Your task to perform on an android device: open device folders in google photos Image 0: 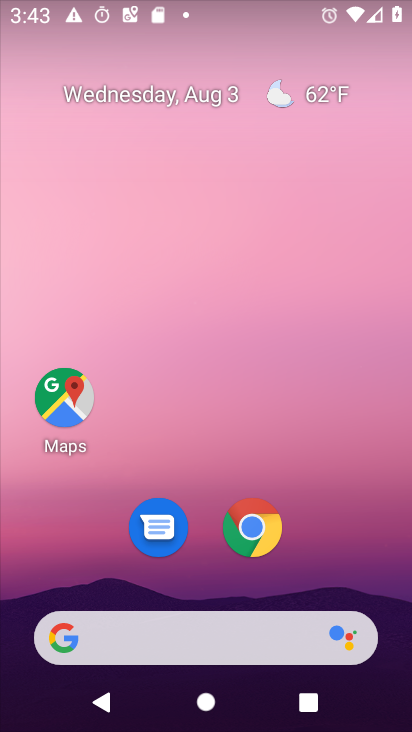
Step 0: drag from (351, 535) to (351, 120)
Your task to perform on an android device: open device folders in google photos Image 1: 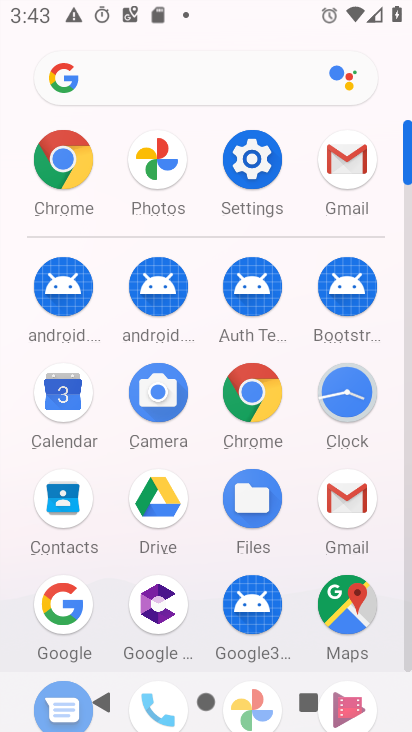
Step 1: drag from (303, 563) to (323, 202)
Your task to perform on an android device: open device folders in google photos Image 2: 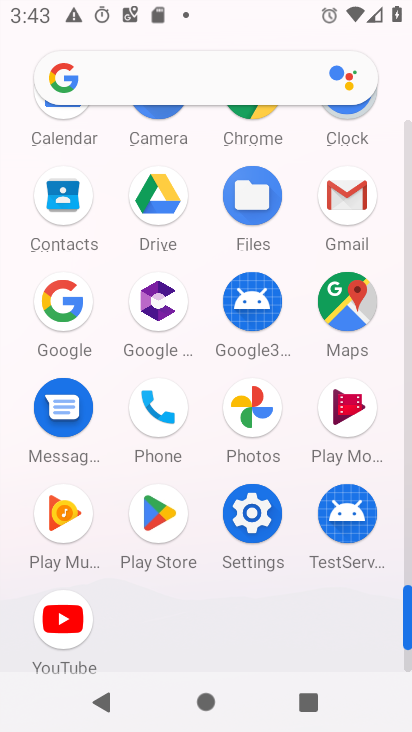
Step 2: click (256, 405)
Your task to perform on an android device: open device folders in google photos Image 3: 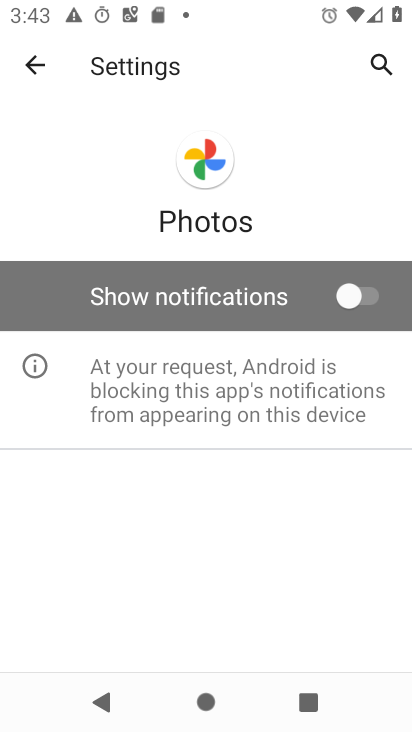
Step 3: click (32, 54)
Your task to perform on an android device: open device folders in google photos Image 4: 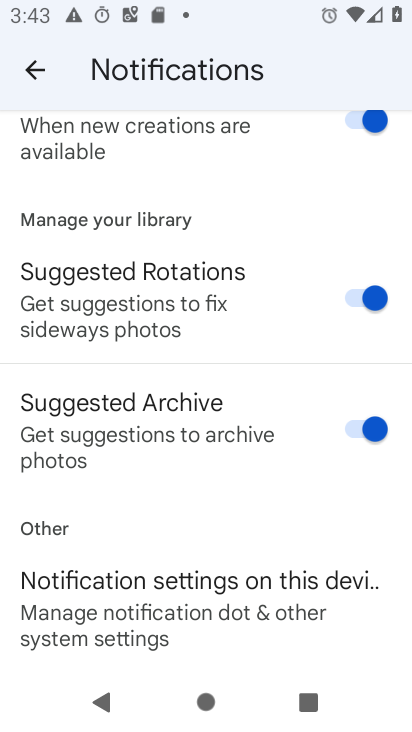
Step 4: click (49, 69)
Your task to perform on an android device: open device folders in google photos Image 5: 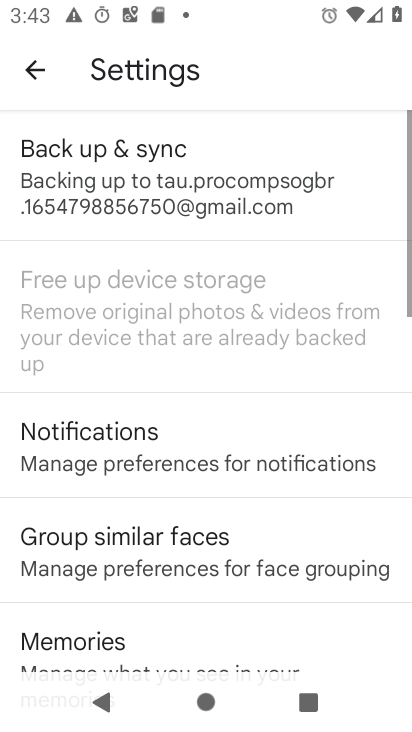
Step 5: click (49, 69)
Your task to perform on an android device: open device folders in google photos Image 6: 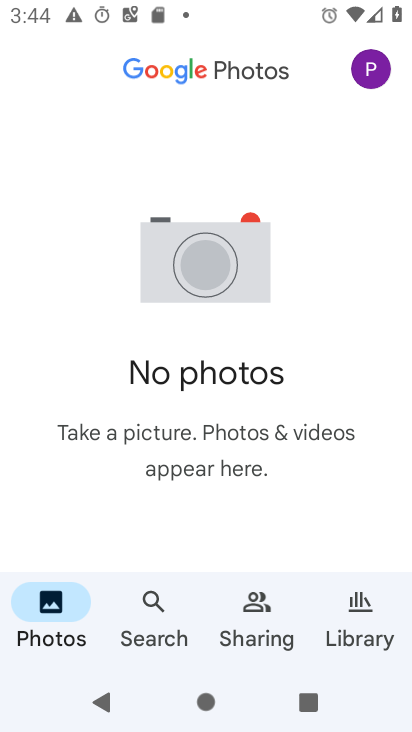
Step 6: click (348, 595)
Your task to perform on an android device: open device folders in google photos Image 7: 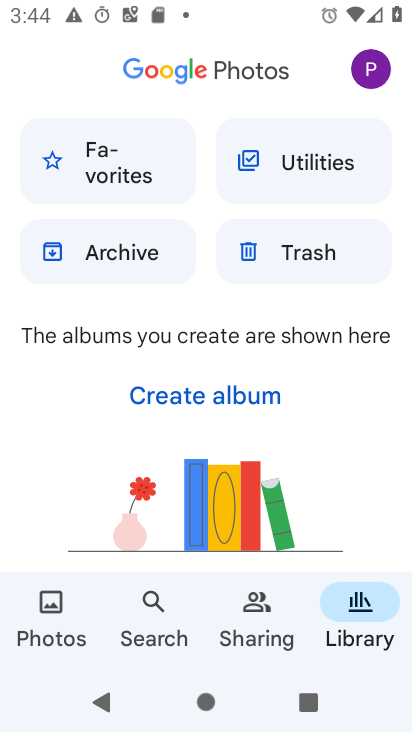
Step 7: click (301, 173)
Your task to perform on an android device: open device folders in google photos Image 8: 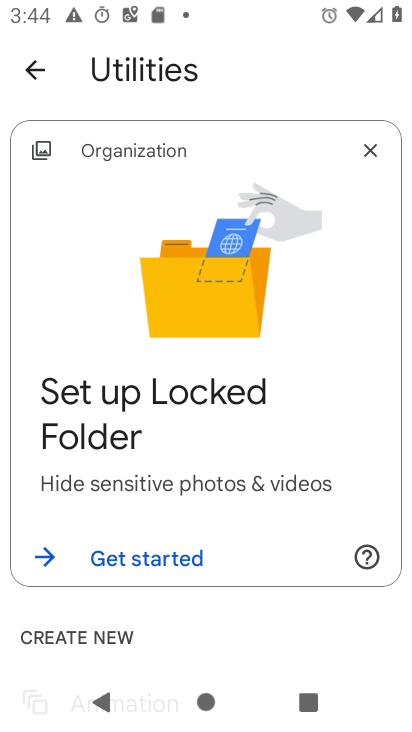
Step 8: drag from (259, 576) to (283, 135)
Your task to perform on an android device: open device folders in google photos Image 9: 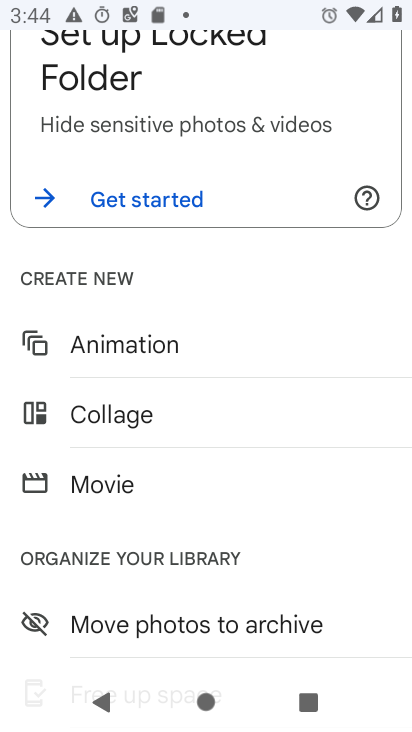
Step 9: drag from (239, 480) to (285, 192)
Your task to perform on an android device: open device folders in google photos Image 10: 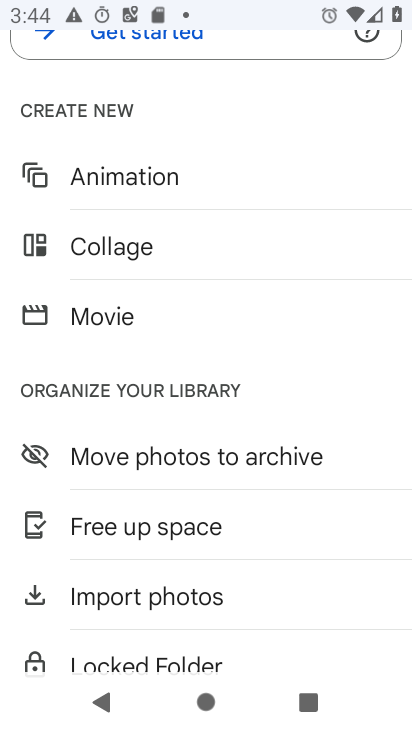
Step 10: drag from (264, 536) to (346, 249)
Your task to perform on an android device: open device folders in google photos Image 11: 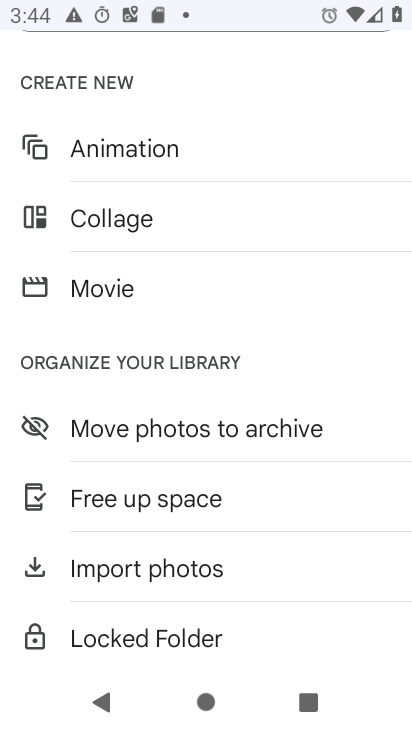
Step 11: click (176, 567)
Your task to perform on an android device: open device folders in google photos Image 12: 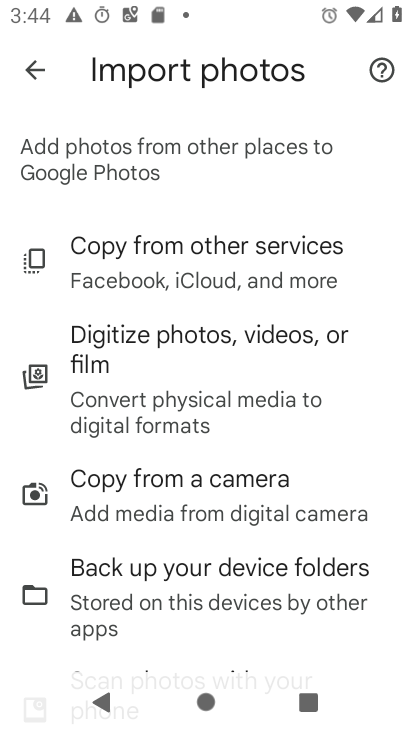
Step 12: click (34, 71)
Your task to perform on an android device: open device folders in google photos Image 13: 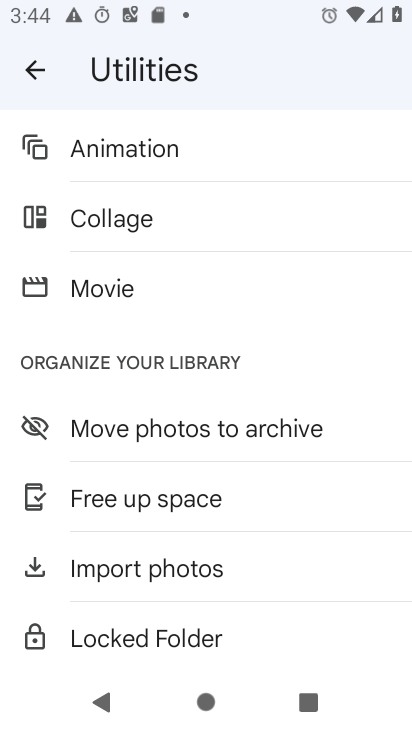
Step 13: drag from (324, 313) to (314, 483)
Your task to perform on an android device: open device folders in google photos Image 14: 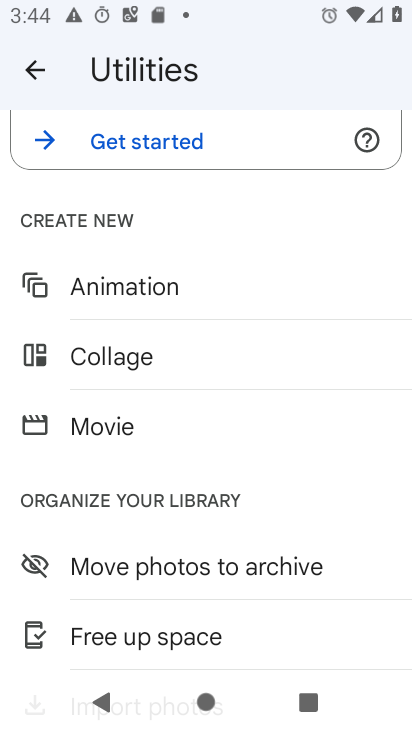
Step 14: drag from (273, 301) to (239, 591)
Your task to perform on an android device: open device folders in google photos Image 15: 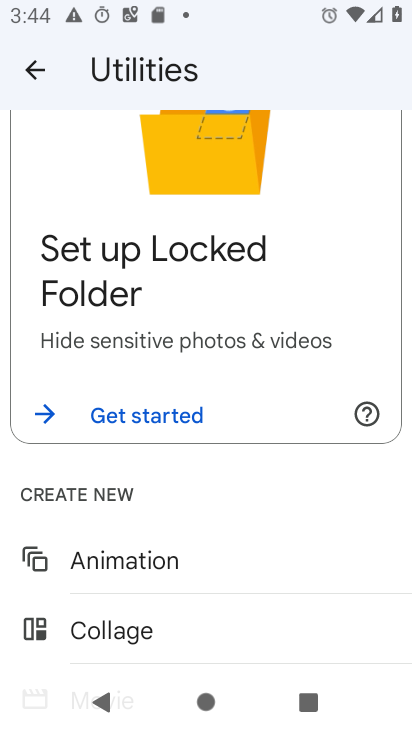
Step 15: drag from (218, 320) to (248, 632)
Your task to perform on an android device: open device folders in google photos Image 16: 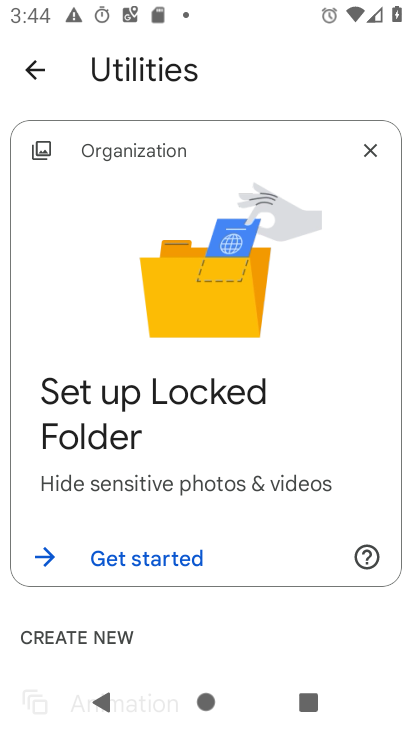
Step 16: drag from (197, 560) to (284, 172)
Your task to perform on an android device: open device folders in google photos Image 17: 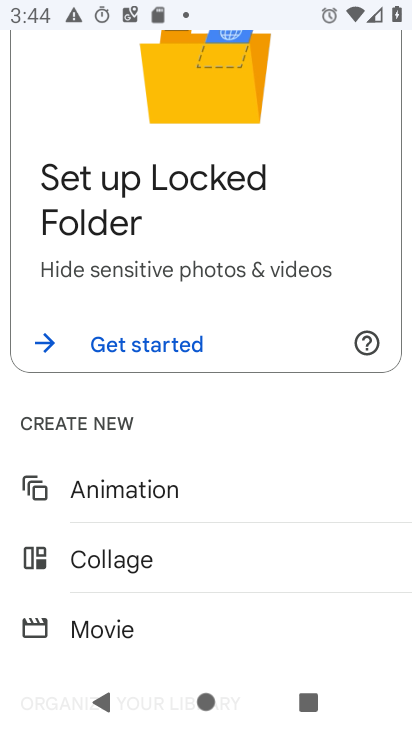
Step 17: drag from (207, 474) to (286, 120)
Your task to perform on an android device: open device folders in google photos Image 18: 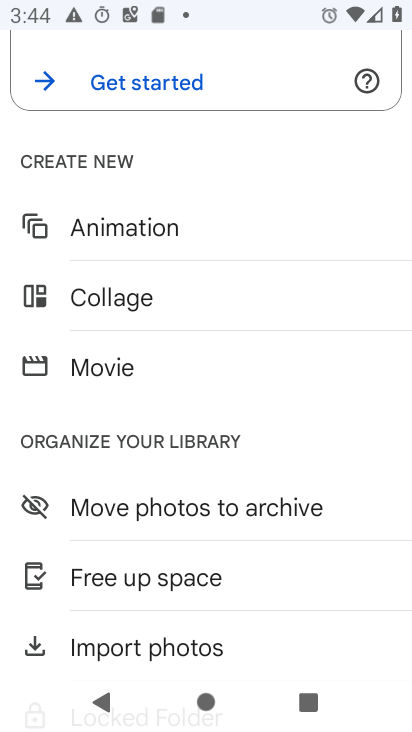
Step 18: drag from (312, 564) to (385, 221)
Your task to perform on an android device: open device folders in google photos Image 19: 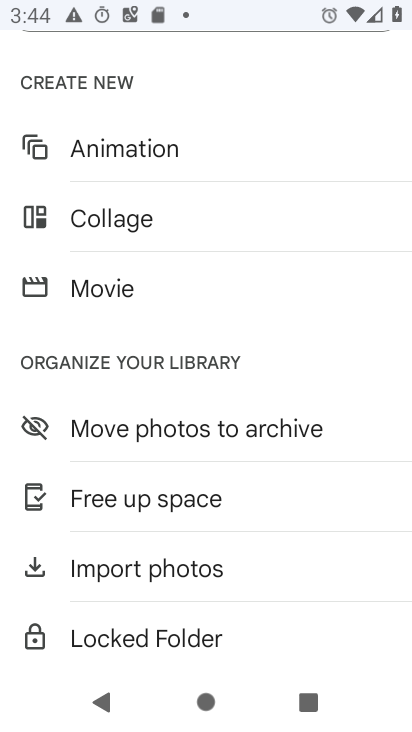
Step 19: press back button
Your task to perform on an android device: open device folders in google photos Image 20: 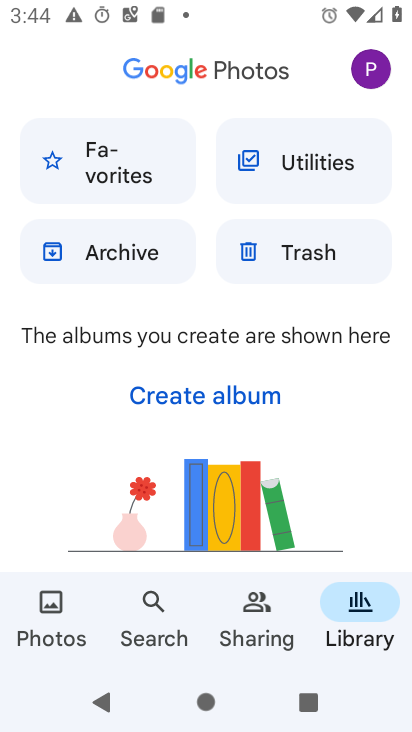
Step 20: click (152, 258)
Your task to perform on an android device: open device folders in google photos Image 21: 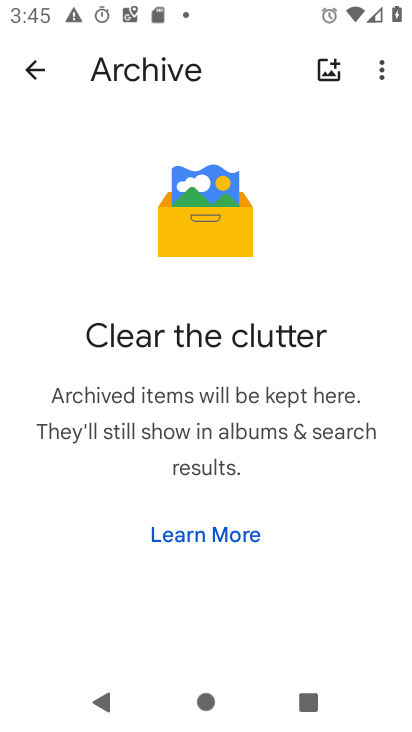
Step 21: click (29, 54)
Your task to perform on an android device: open device folders in google photos Image 22: 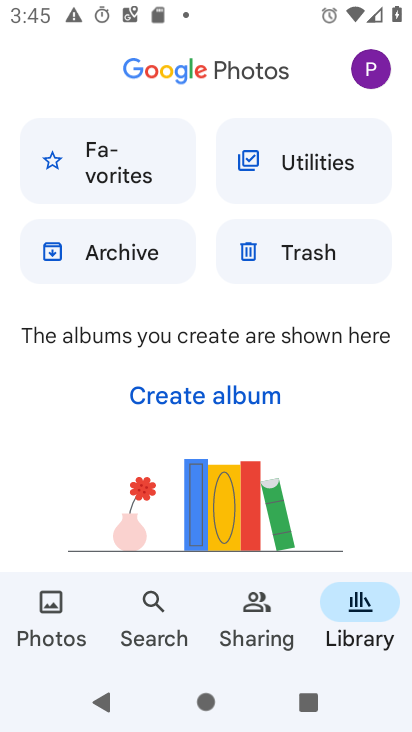
Step 22: click (269, 240)
Your task to perform on an android device: open device folders in google photos Image 23: 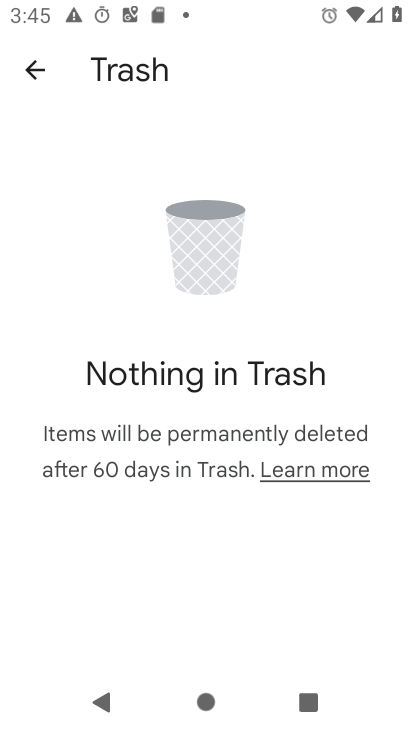
Step 23: click (29, 78)
Your task to perform on an android device: open device folders in google photos Image 24: 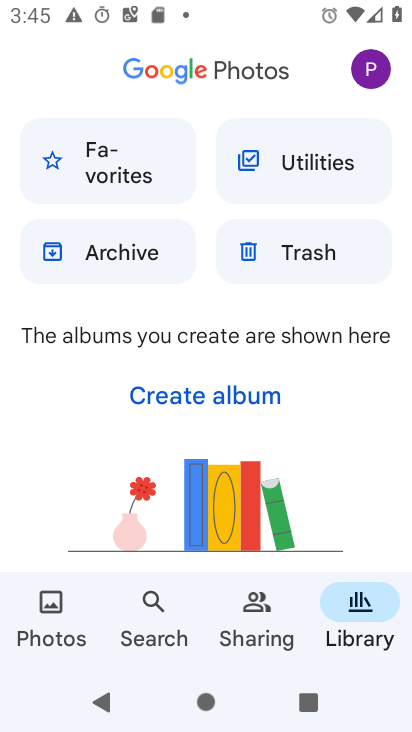
Step 24: click (129, 144)
Your task to perform on an android device: open device folders in google photos Image 25: 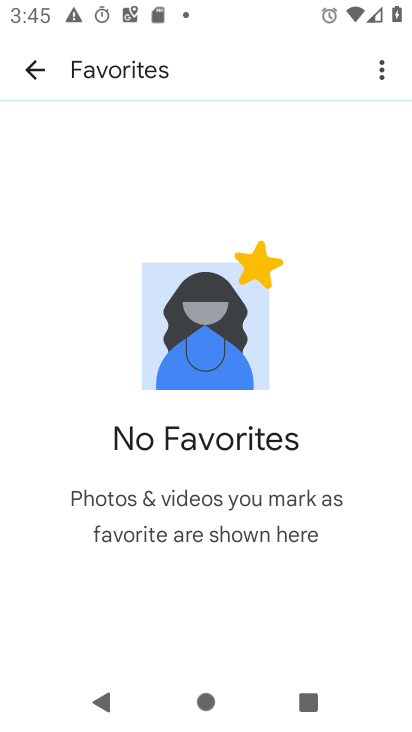
Step 25: click (50, 72)
Your task to perform on an android device: open device folders in google photos Image 26: 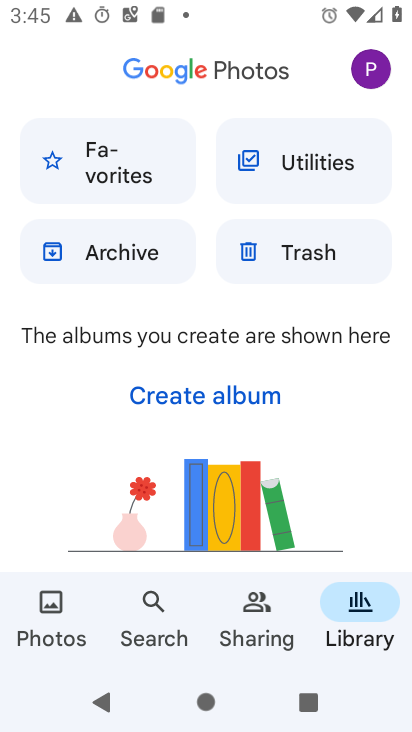
Step 26: click (371, 70)
Your task to perform on an android device: open device folders in google photos Image 27: 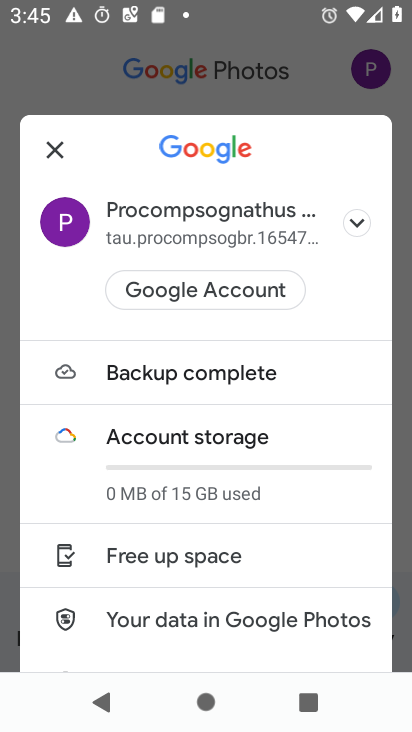
Step 27: drag from (290, 442) to (314, 138)
Your task to perform on an android device: open device folders in google photos Image 28: 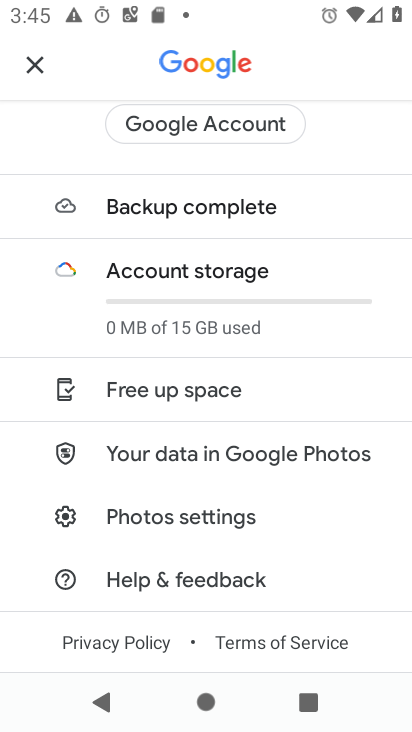
Step 28: click (191, 536)
Your task to perform on an android device: open device folders in google photos Image 29: 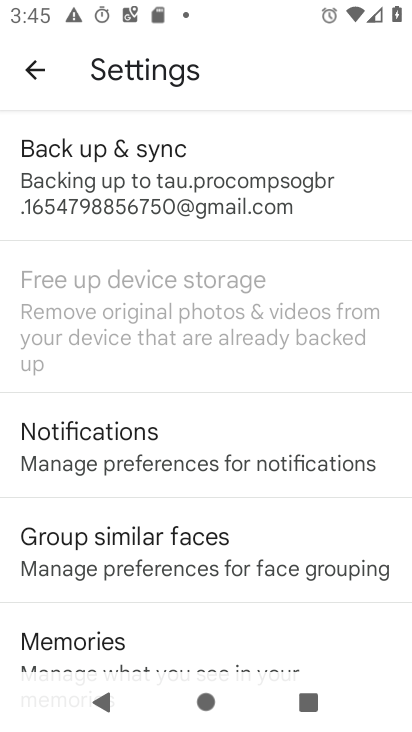
Step 29: task complete